Your task to perform on an android device: Open the phone app and click the voicemail tab. Image 0: 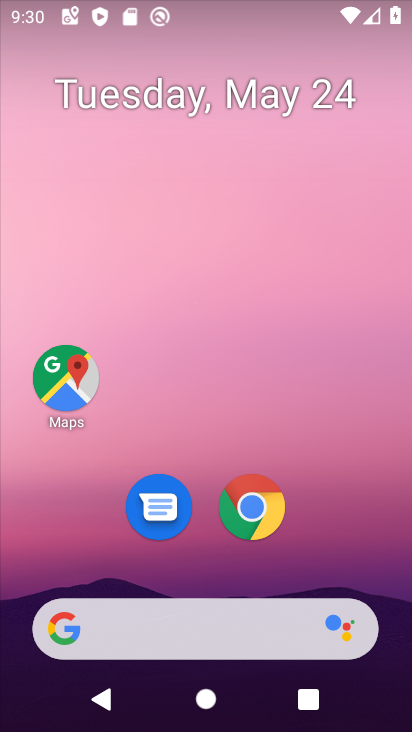
Step 0: drag from (113, 581) to (195, 40)
Your task to perform on an android device: Open the phone app and click the voicemail tab. Image 1: 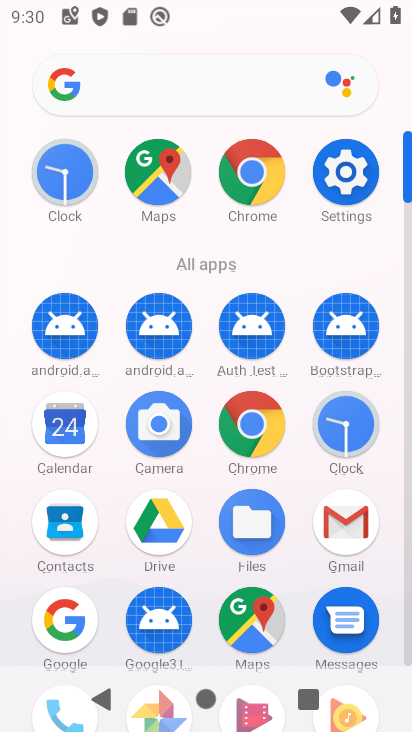
Step 1: drag from (297, 608) to (296, 321)
Your task to perform on an android device: Open the phone app and click the voicemail tab. Image 2: 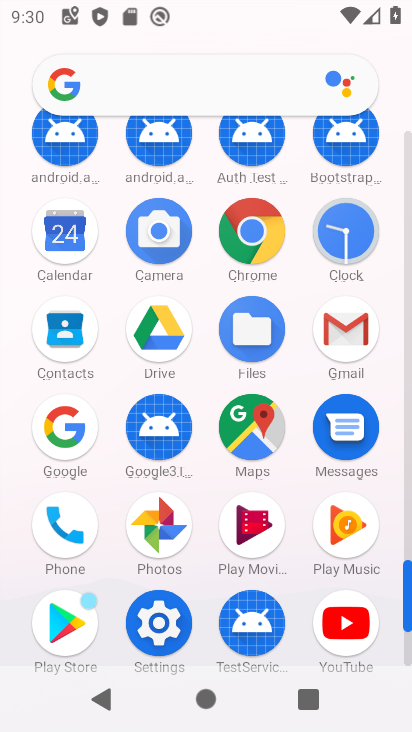
Step 2: click (72, 526)
Your task to perform on an android device: Open the phone app and click the voicemail tab. Image 3: 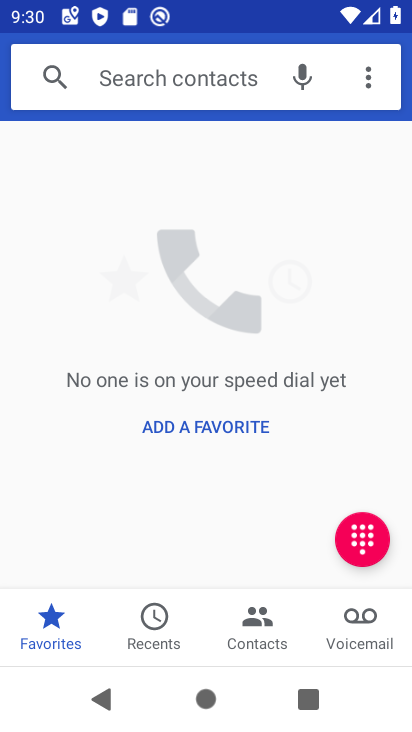
Step 3: click (378, 598)
Your task to perform on an android device: Open the phone app and click the voicemail tab. Image 4: 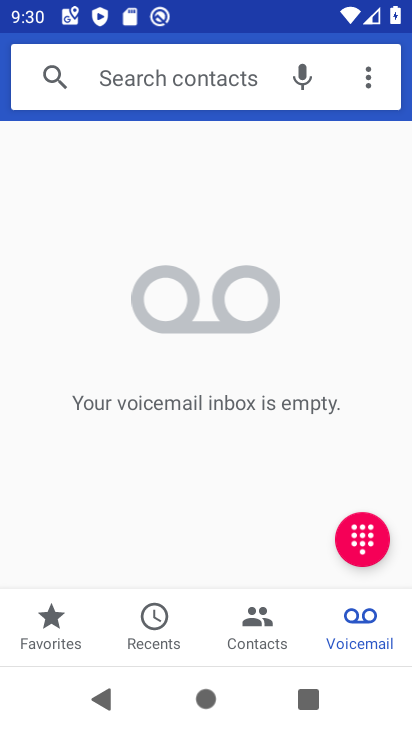
Step 4: task complete